Your task to perform on an android device: turn pop-ups off in chrome Image 0: 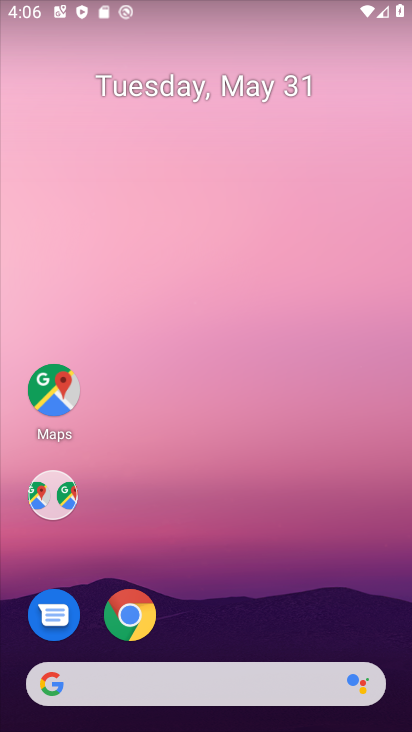
Step 0: click (220, 193)
Your task to perform on an android device: turn pop-ups off in chrome Image 1: 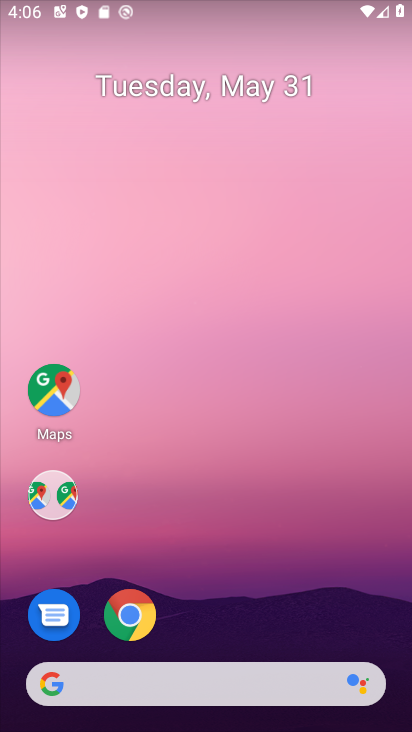
Step 1: drag from (196, 670) to (184, 269)
Your task to perform on an android device: turn pop-ups off in chrome Image 2: 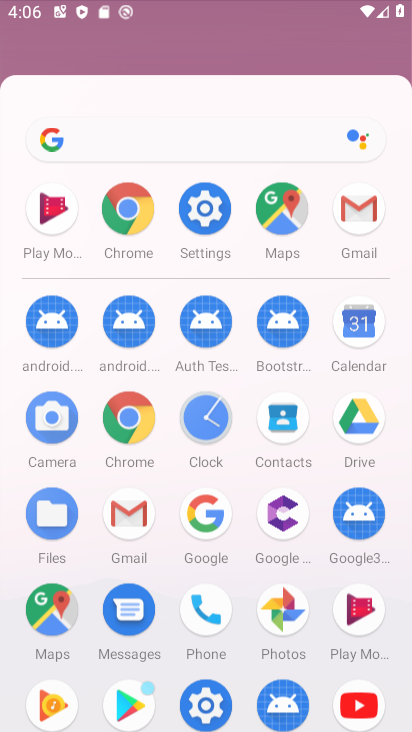
Step 2: drag from (291, 632) to (254, 192)
Your task to perform on an android device: turn pop-ups off in chrome Image 3: 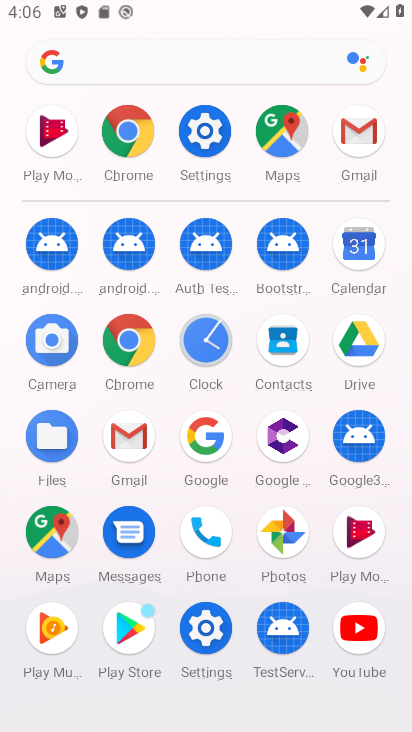
Step 3: click (136, 139)
Your task to perform on an android device: turn pop-ups off in chrome Image 4: 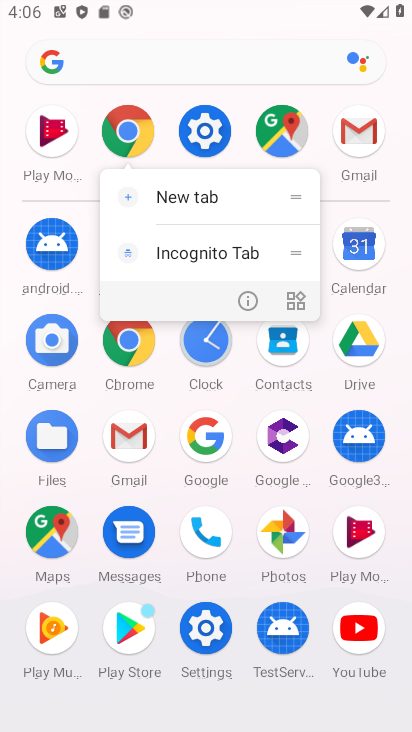
Step 4: click (131, 143)
Your task to perform on an android device: turn pop-ups off in chrome Image 5: 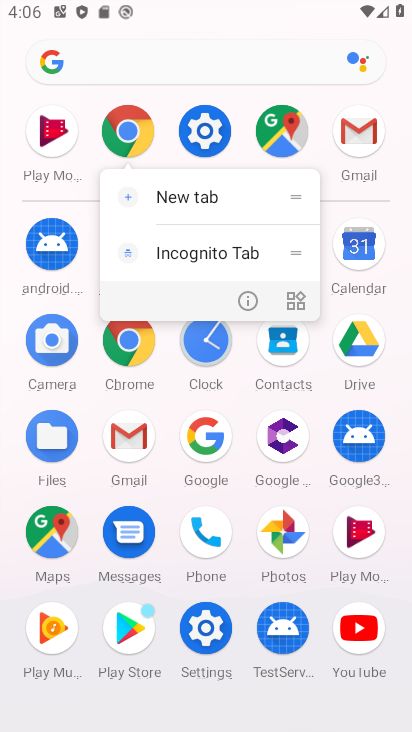
Step 5: click (128, 116)
Your task to perform on an android device: turn pop-ups off in chrome Image 6: 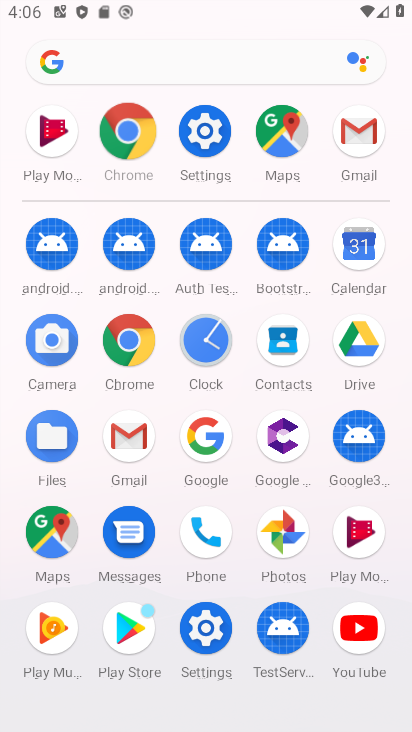
Step 6: click (127, 115)
Your task to perform on an android device: turn pop-ups off in chrome Image 7: 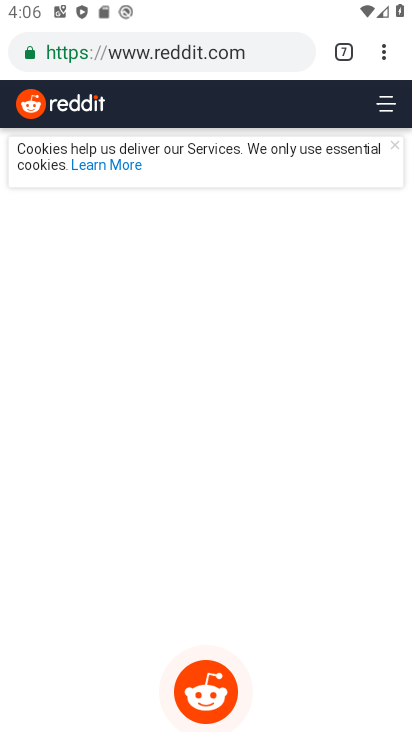
Step 7: drag from (384, 52) to (220, 628)
Your task to perform on an android device: turn pop-ups off in chrome Image 8: 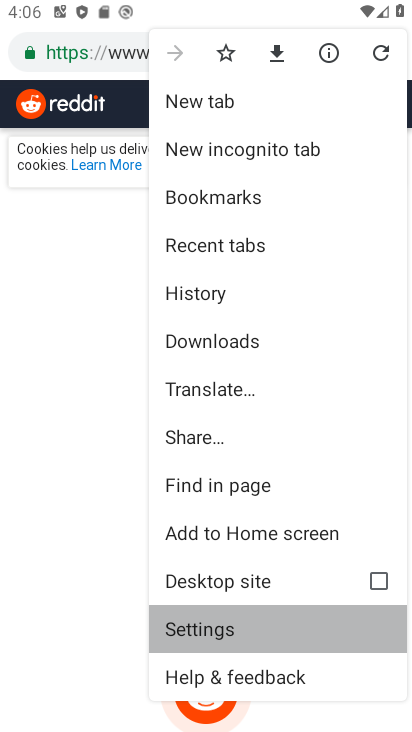
Step 8: click (220, 628)
Your task to perform on an android device: turn pop-ups off in chrome Image 9: 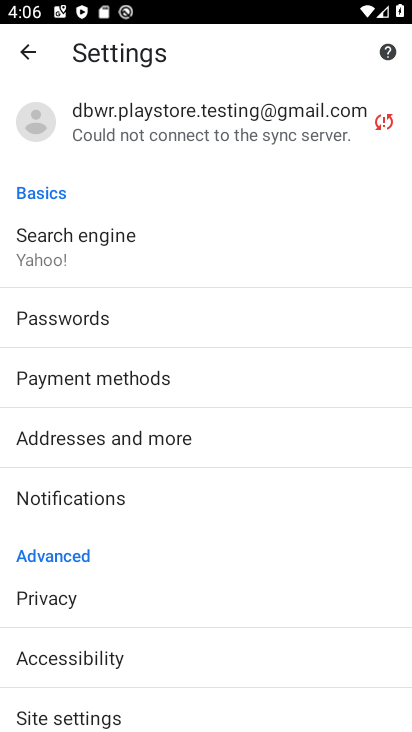
Step 9: drag from (176, 563) to (138, 166)
Your task to perform on an android device: turn pop-ups off in chrome Image 10: 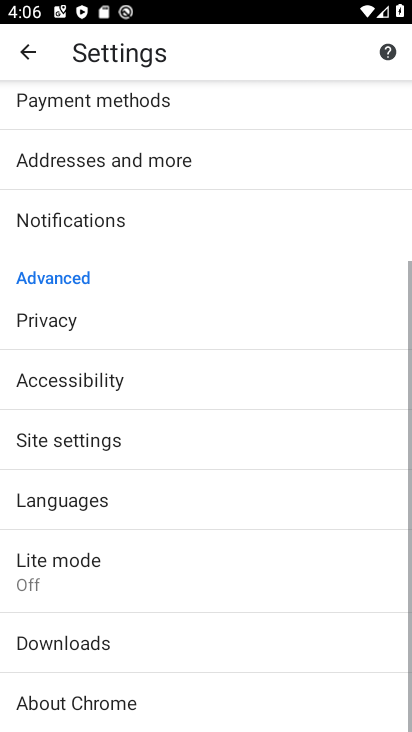
Step 10: drag from (165, 573) to (185, 169)
Your task to perform on an android device: turn pop-ups off in chrome Image 11: 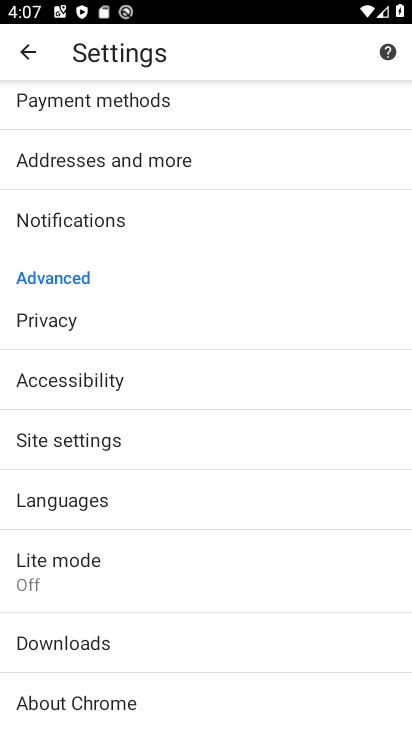
Step 11: drag from (58, 504) to (55, 232)
Your task to perform on an android device: turn pop-ups off in chrome Image 12: 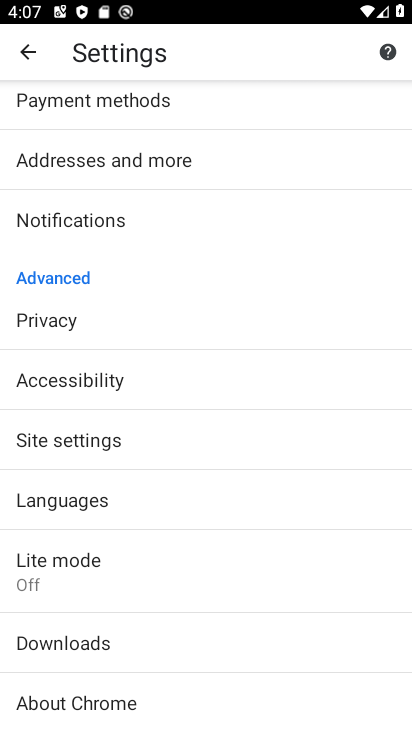
Step 12: drag from (97, 534) to (90, 128)
Your task to perform on an android device: turn pop-ups off in chrome Image 13: 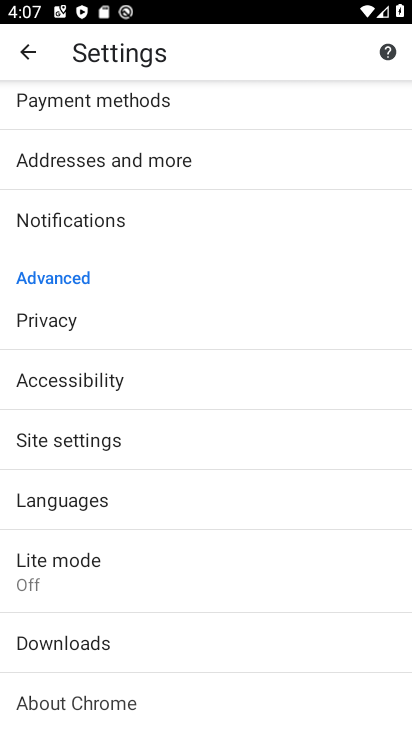
Step 13: drag from (154, 541) to (155, 229)
Your task to perform on an android device: turn pop-ups off in chrome Image 14: 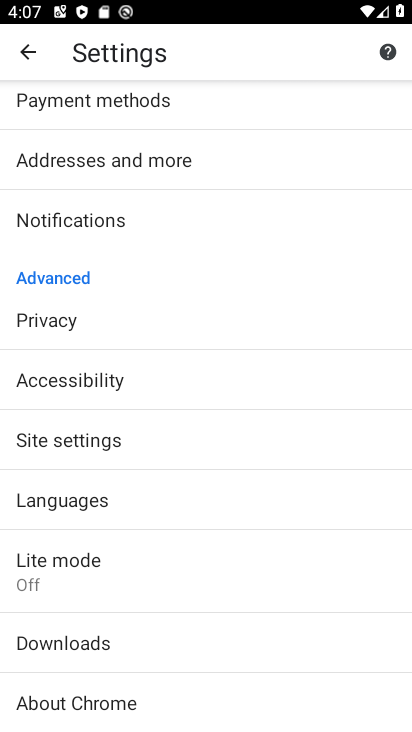
Step 14: drag from (139, 498) to (134, 70)
Your task to perform on an android device: turn pop-ups off in chrome Image 15: 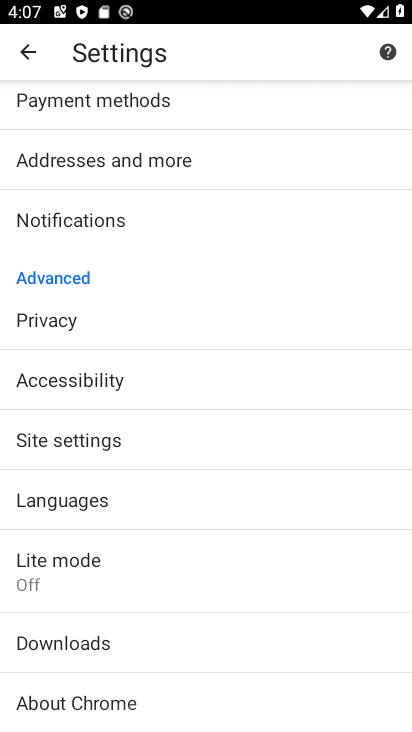
Step 15: drag from (210, 469) to (230, 145)
Your task to perform on an android device: turn pop-ups off in chrome Image 16: 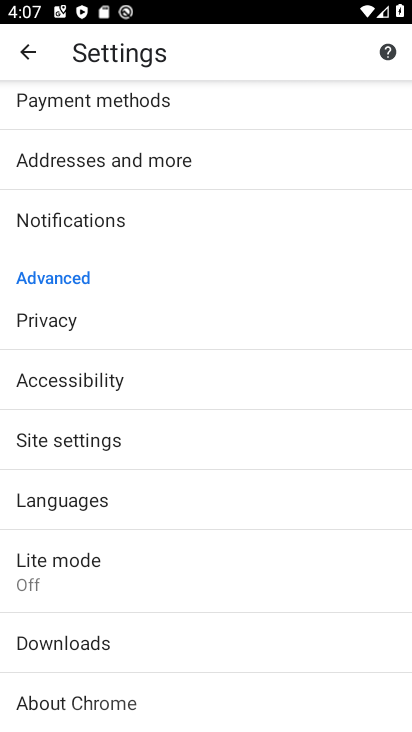
Step 16: drag from (201, 484) to (202, 34)
Your task to perform on an android device: turn pop-ups off in chrome Image 17: 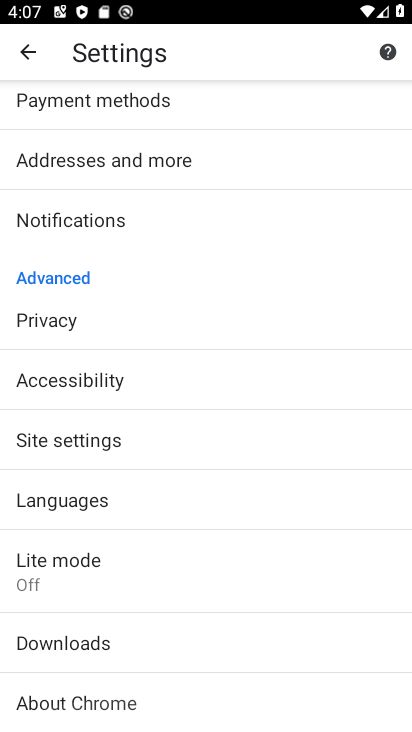
Step 17: drag from (194, 353) to (191, 40)
Your task to perform on an android device: turn pop-ups off in chrome Image 18: 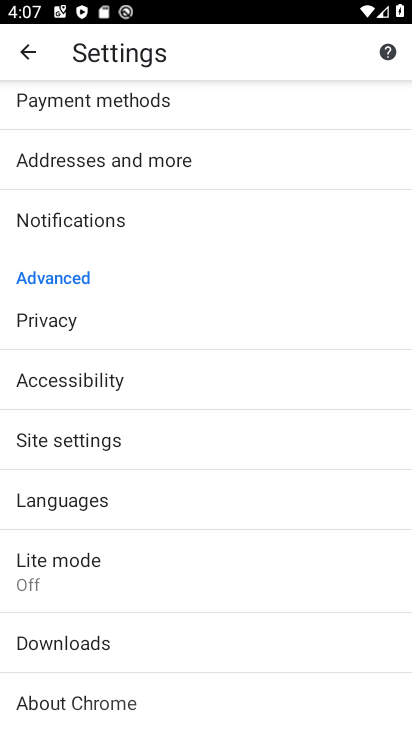
Step 18: drag from (150, 562) to (103, 322)
Your task to perform on an android device: turn pop-ups off in chrome Image 19: 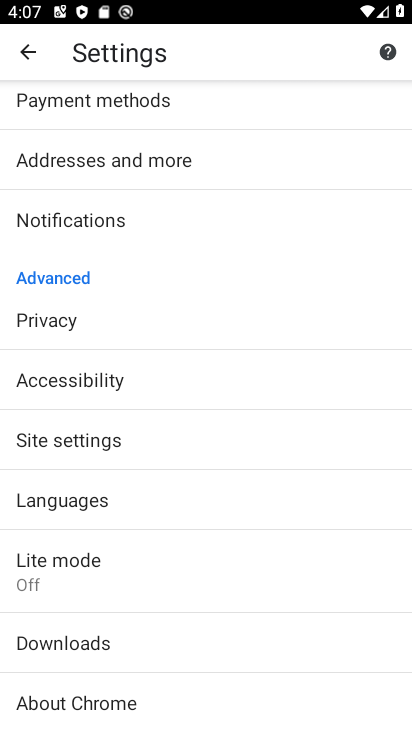
Step 19: drag from (114, 520) to (128, 219)
Your task to perform on an android device: turn pop-ups off in chrome Image 20: 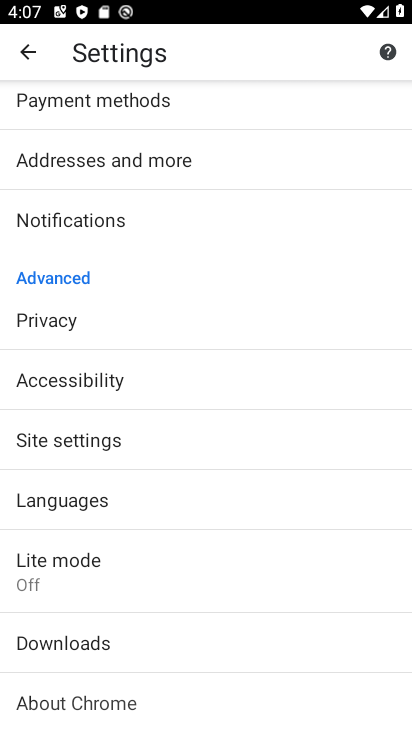
Step 20: drag from (145, 605) to (145, 243)
Your task to perform on an android device: turn pop-ups off in chrome Image 21: 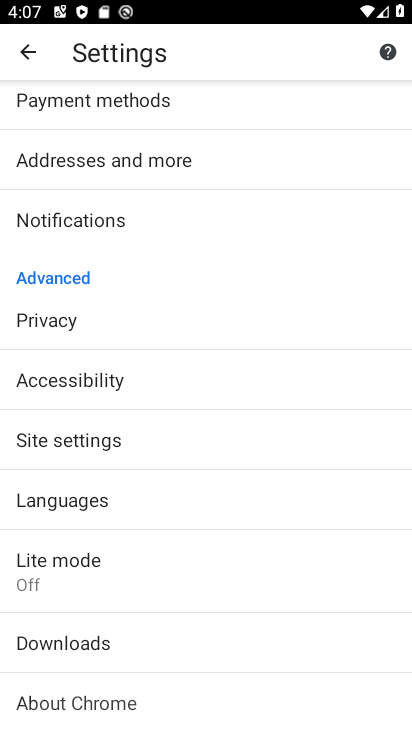
Step 21: drag from (160, 618) to (241, 147)
Your task to perform on an android device: turn pop-ups off in chrome Image 22: 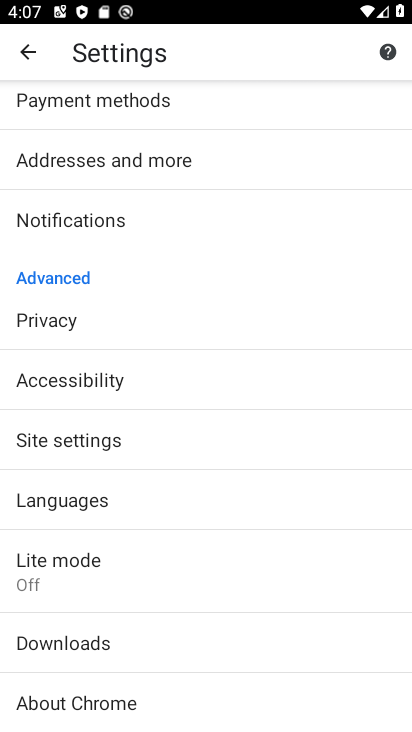
Step 22: drag from (240, 437) to (246, 146)
Your task to perform on an android device: turn pop-ups off in chrome Image 23: 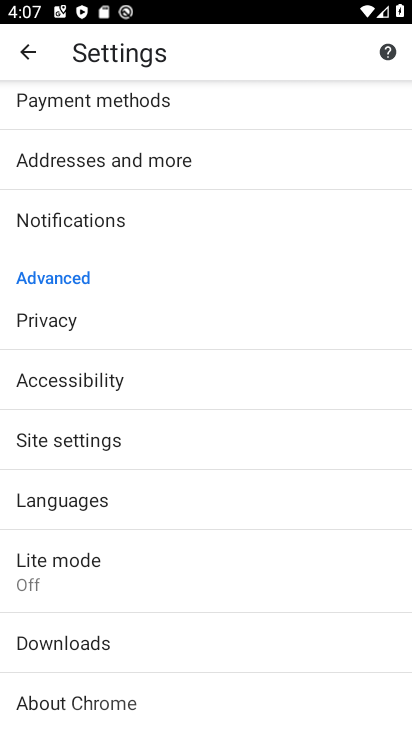
Step 23: drag from (196, 594) to (265, 257)
Your task to perform on an android device: turn pop-ups off in chrome Image 24: 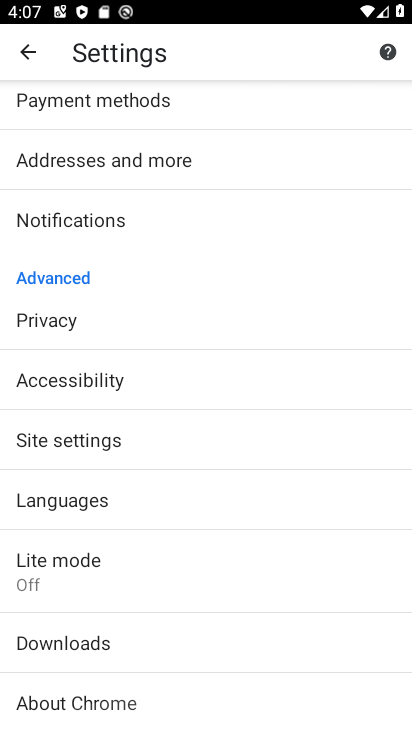
Step 24: drag from (192, 592) to (165, 341)
Your task to perform on an android device: turn pop-ups off in chrome Image 25: 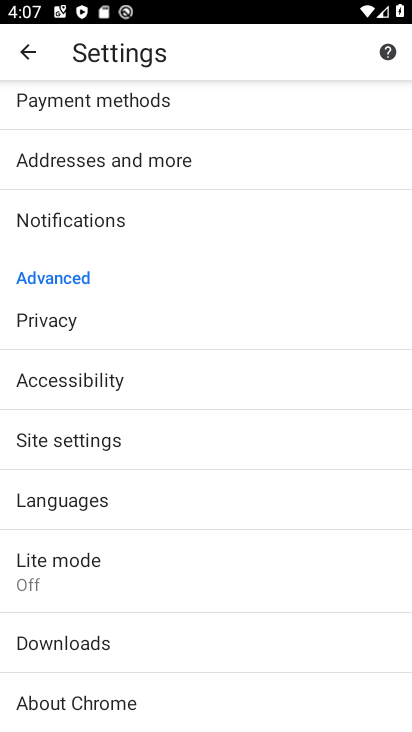
Step 25: click (61, 429)
Your task to perform on an android device: turn pop-ups off in chrome Image 26: 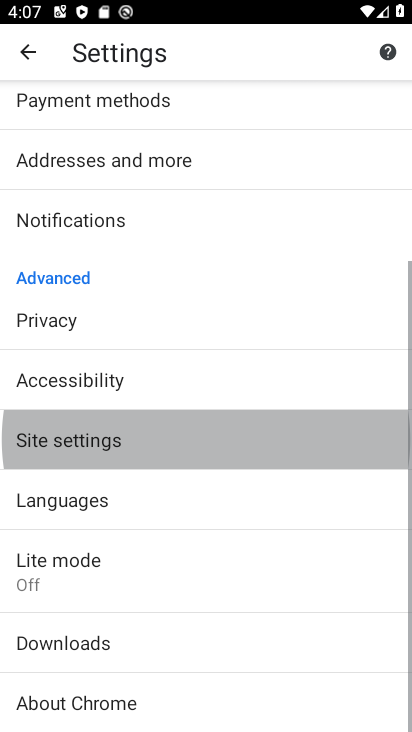
Step 26: click (61, 429)
Your task to perform on an android device: turn pop-ups off in chrome Image 27: 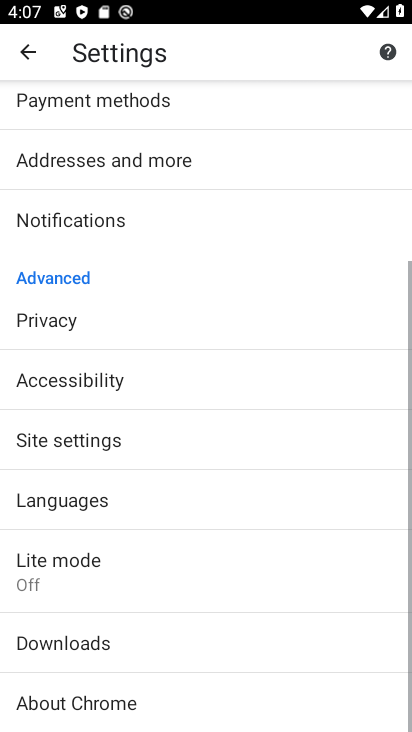
Step 27: click (61, 428)
Your task to perform on an android device: turn pop-ups off in chrome Image 28: 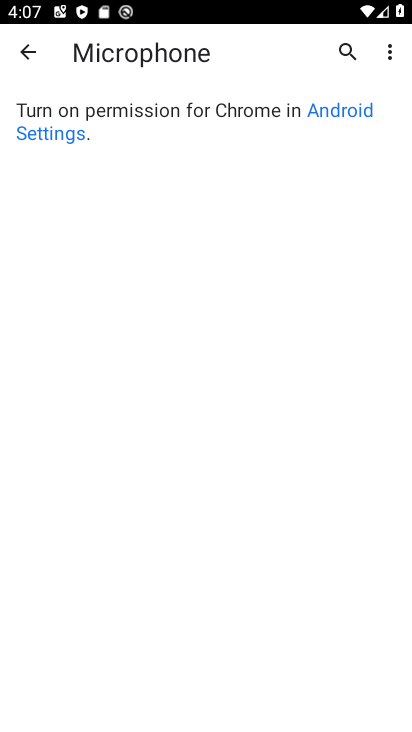
Step 28: click (24, 46)
Your task to perform on an android device: turn pop-ups off in chrome Image 29: 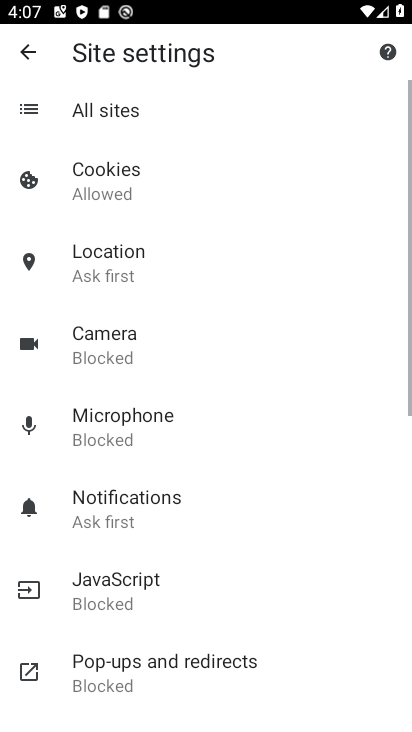
Step 29: click (27, 45)
Your task to perform on an android device: turn pop-ups off in chrome Image 30: 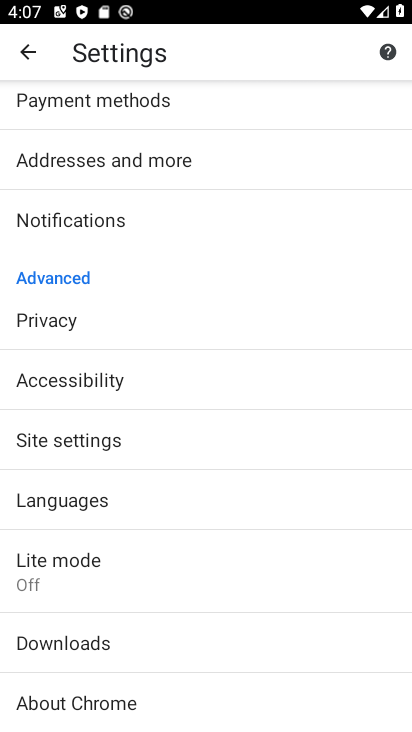
Step 30: click (40, 436)
Your task to perform on an android device: turn pop-ups off in chrome Image 31: 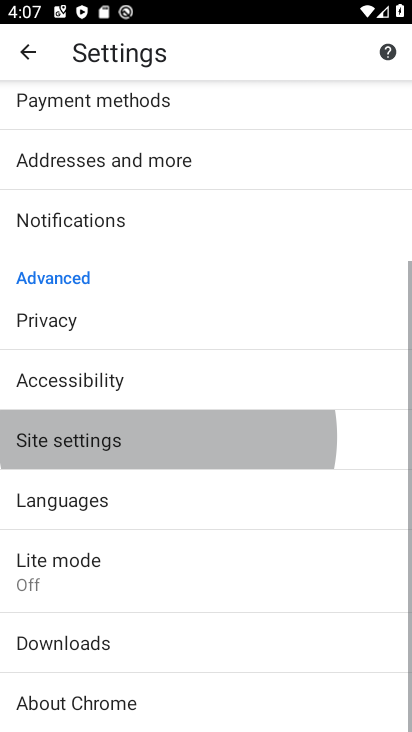
Step 31: click (40, 436)
Your task to perform on an android device: turn pop-ups off in chrome Image 32: 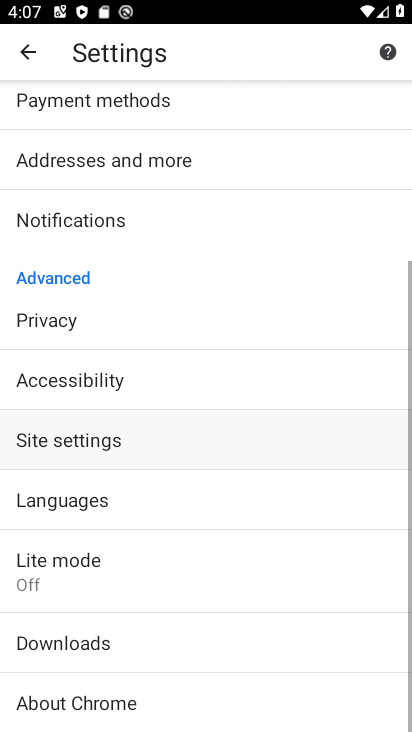
Step 32: click (40, 436)
Your task to perform on an android device: turn pop-ups off in chrome Image 33: 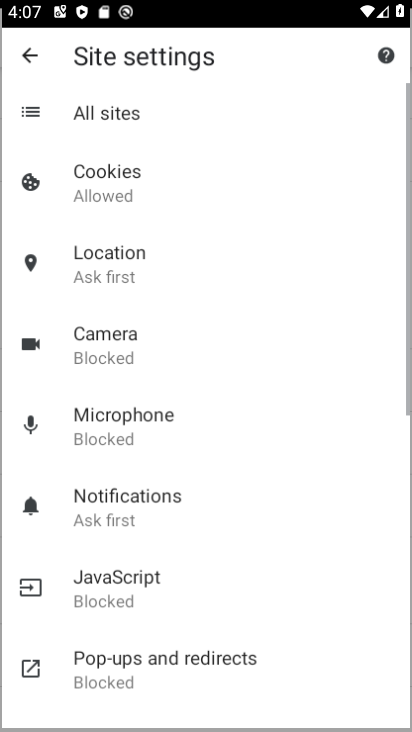
Step 33: click (40, 436)
Your task to perform on an android device: turn pop-ups off in chrome Image 34: 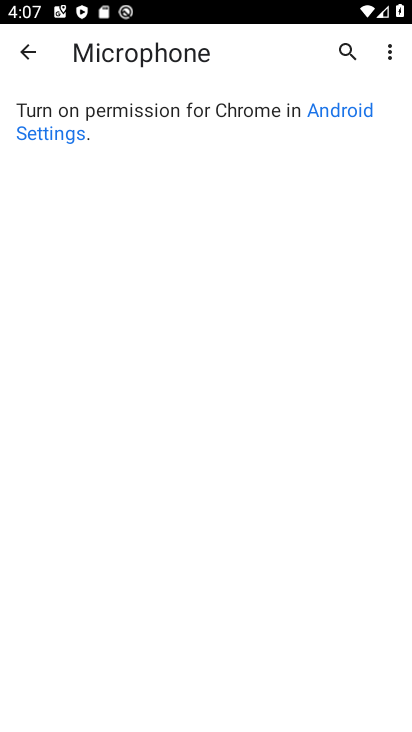
Step 34: click (17, 39)
Your task to perform on an android device: turn pop-ups off in chrome Image 35: 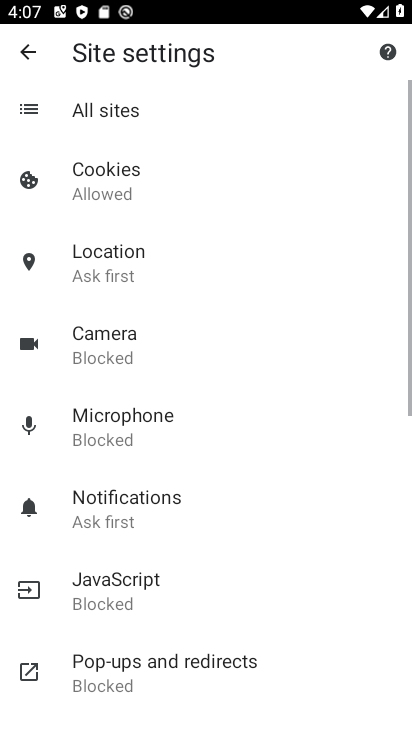
Step 35: task complete